Your task to perform on an android device: When is my next meeting? Image 0: 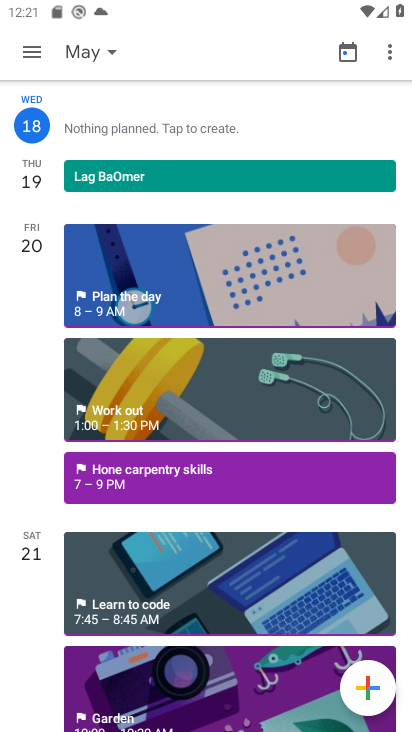
Step 0: press home button
Your task to perform on an android device: When is my next meeting? Image 1: 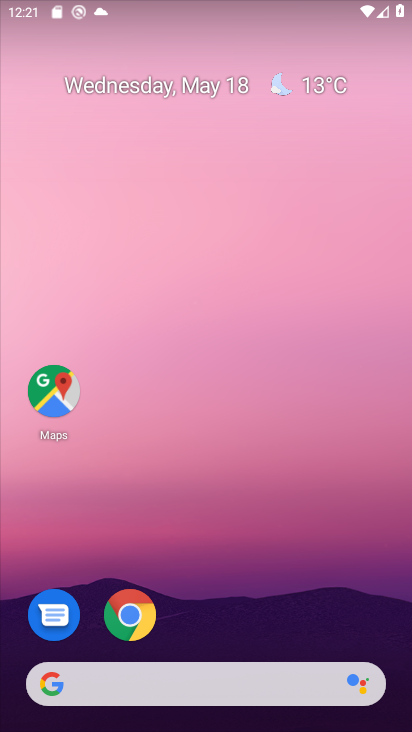
Step 1: drag from (396, 619) to (393, 248)
Your task to perform on an android device: When is my next meeting? Image 2: 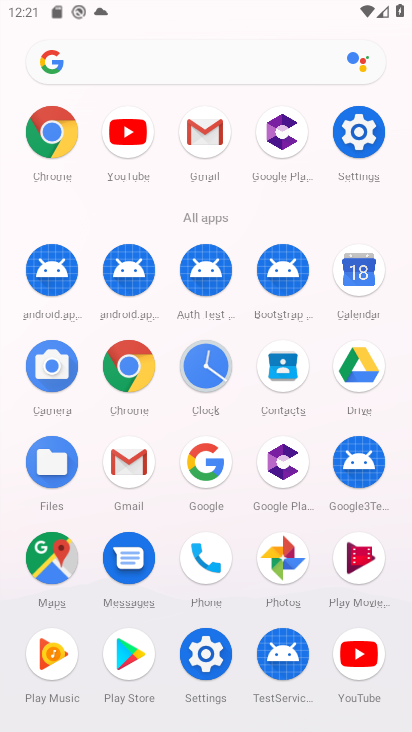
Step 2: click (364, 281)
Your task to perform on an android device: When is my next meeting? Image 3: 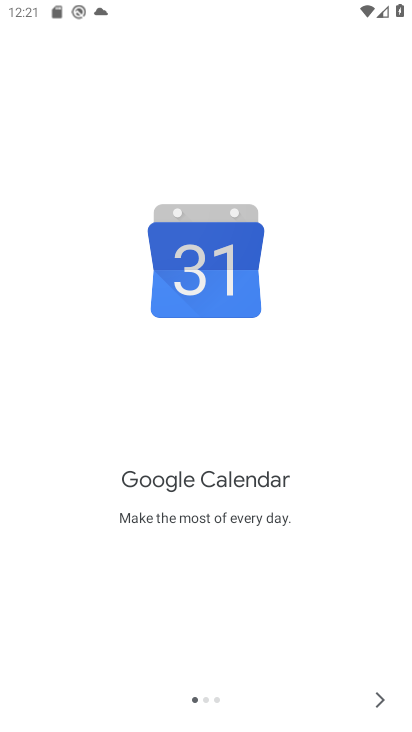
Step 3: click (383, 703)
Your task to perform on an android device: When is my next meeting? Image 4: 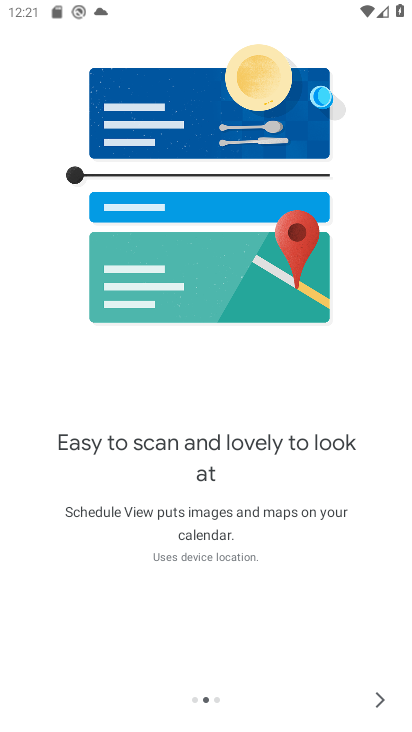
Step 4: click (383, 703)
Your task to perform on an android device: When is my next meeting? Image 5: 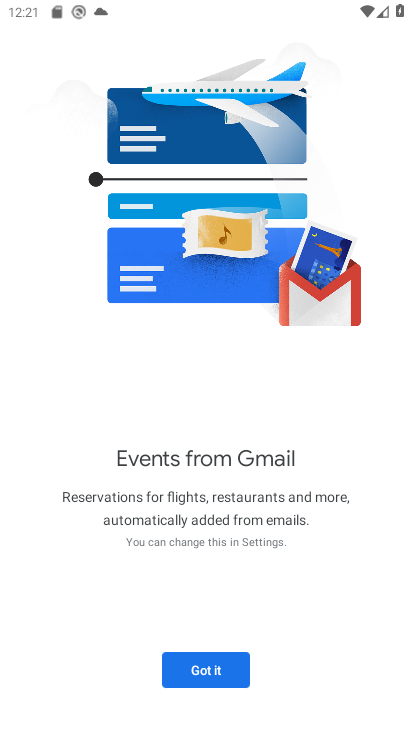
Step 5: click (203, 678)
Your task to perform on an android device: When is my next meeting? Image 6: 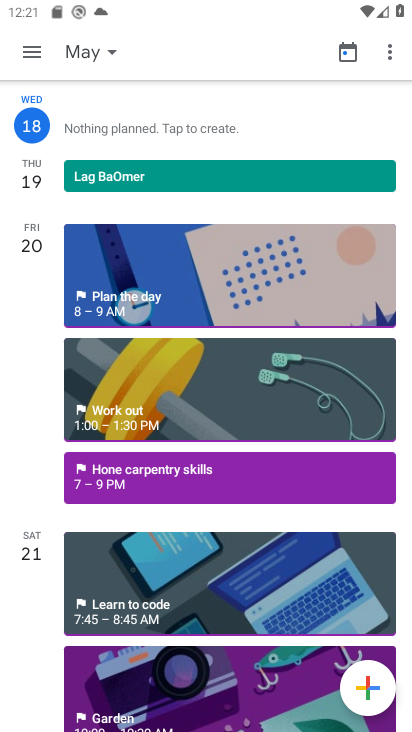
Step 6: click (108, 52)
Your task to perform on an android device: When is my next meeting? Image 7: 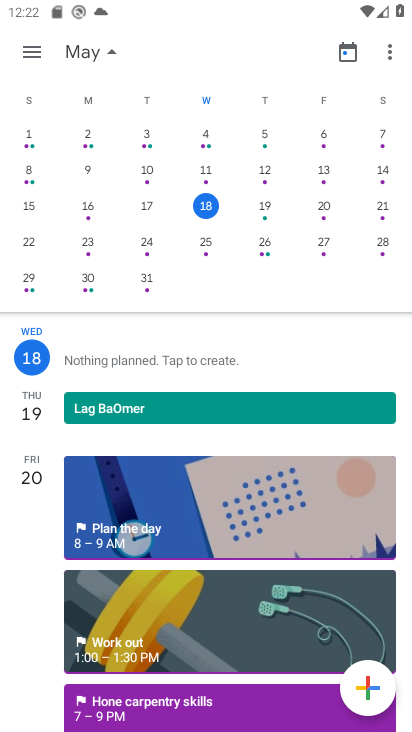
Step 7: click (29, 48)
Your task to perform on an android device: When is my next meeting? Image 8: 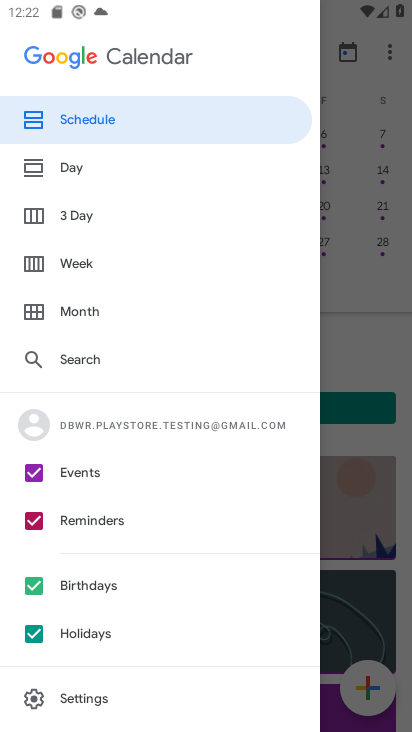
Step 8: click (38, 628)
Your task to perform on an android device: When is my next meeting? Image 9: 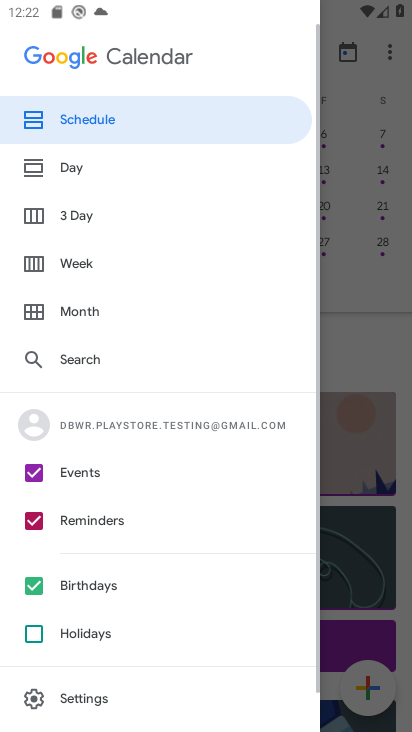
Step 9: click (28, 587)
Your task to perform on an android device: When is my next meeting? Image 10: 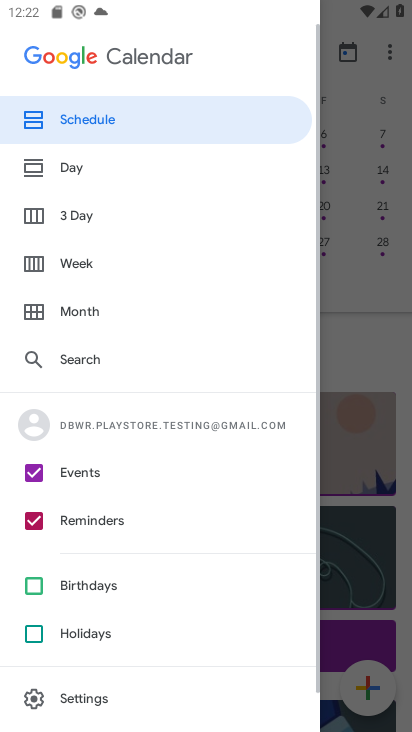
Step 10: click (39, 507)
Your task to perform on an android device: When is my next meeting? Image 11: 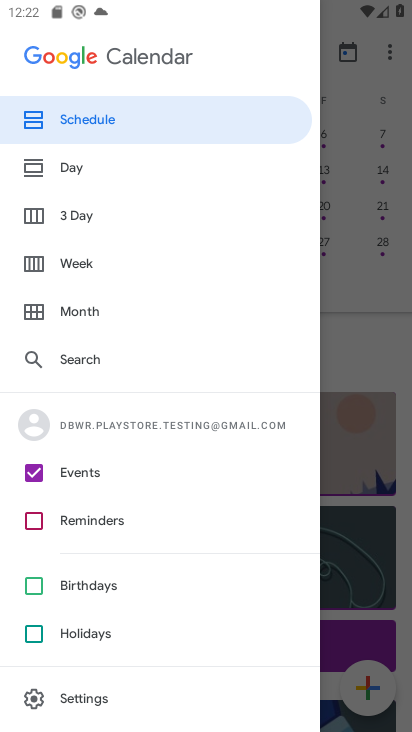
Step 11: click (106, 116)
Your task to perform on an android device: When is my next meeting? Image 12: 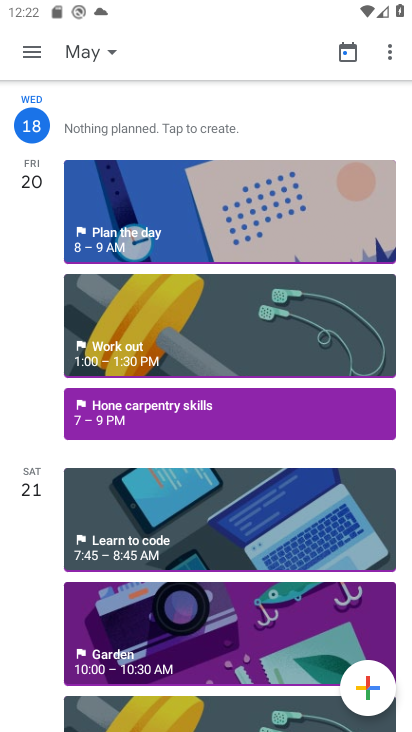
Step 12: task complete